Your task to perform on an android device: Turn off the flashlight Image 0: 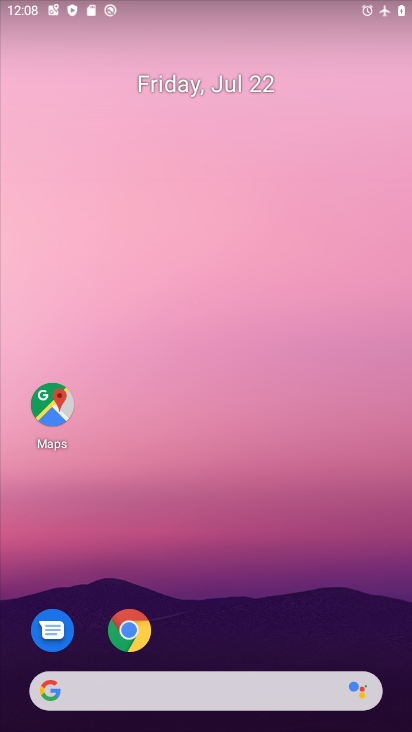
Step 0: drag from (221, 638) to (274, 5)
Your task to perform on an android device: Turn off the flashlight Image 1: 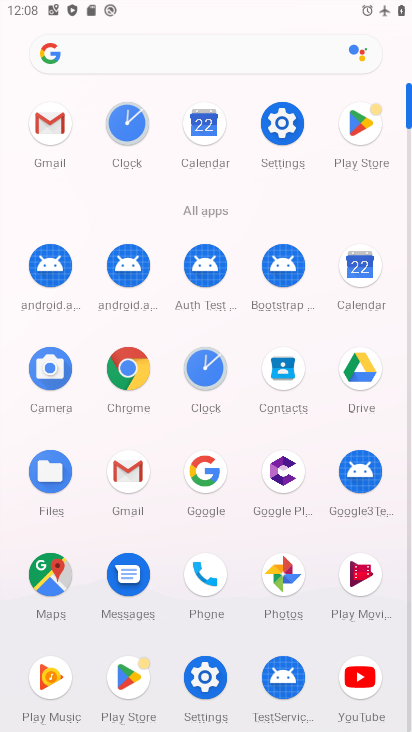
Step 1: click (289, 148)
Your task to perform on an android device: Turn off the flashlight Image 2: 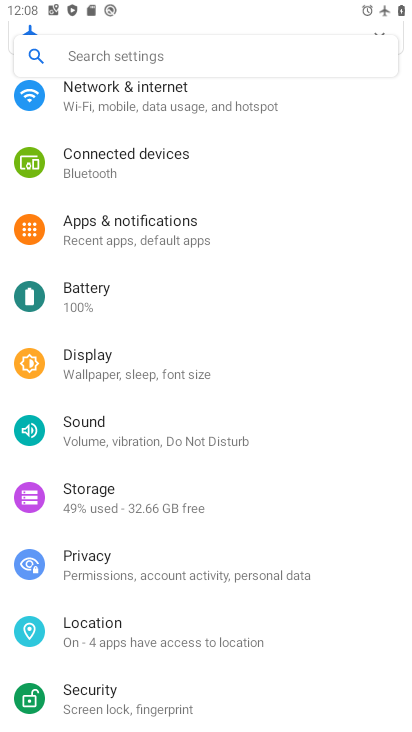
Step 2: click (189, 62)
Your task to perform on an android device: Turn off the flashlight Image 3: 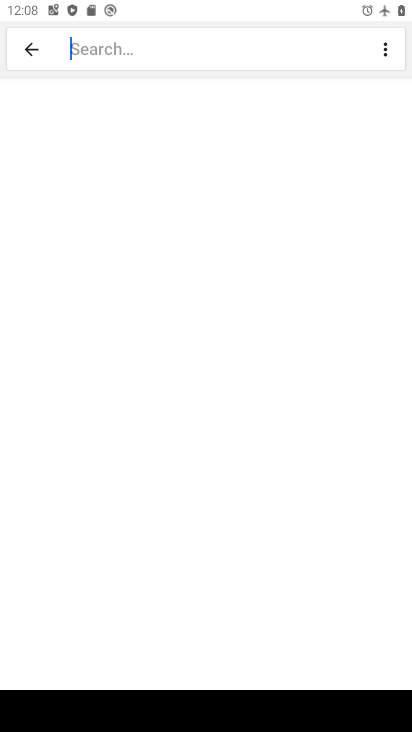
Step 3: type "fl"
Your task to perform on an android device: Turn off the flashlight Image 4: 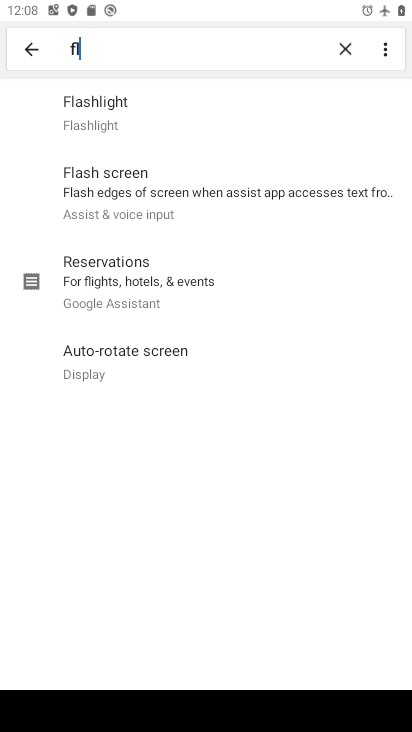
Step 4: click (161, 49)
Your task to perform on an android device: Turn off the flashlight Image 5: 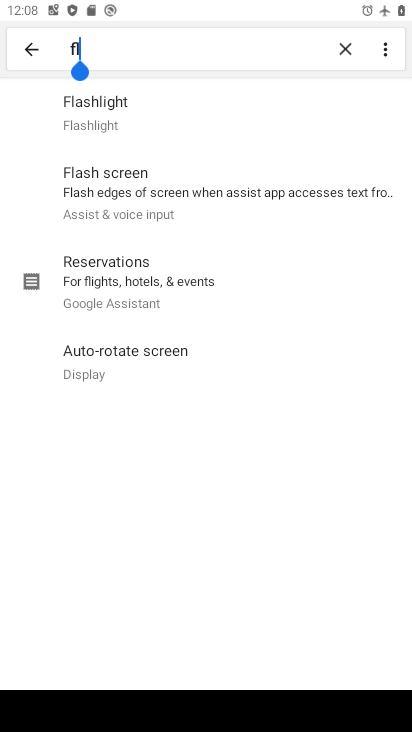
Step 5: click (87, 116)
Your task to perform on an android device: Turn off the flashlight Image 6: 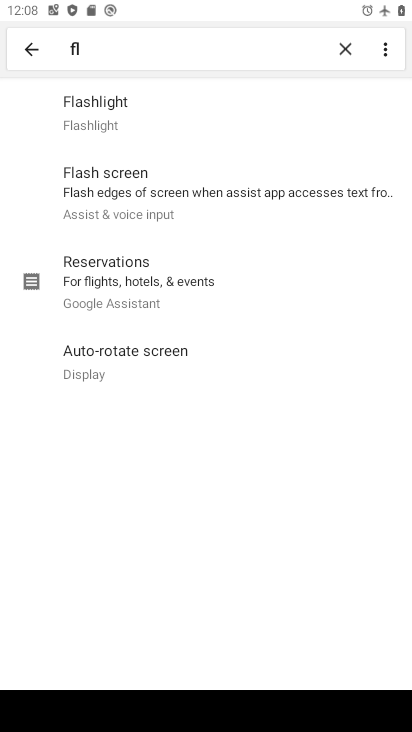
Step 6: click (87, 116)
Your task to perform on an android device: Turn off the flashlight Image 7: 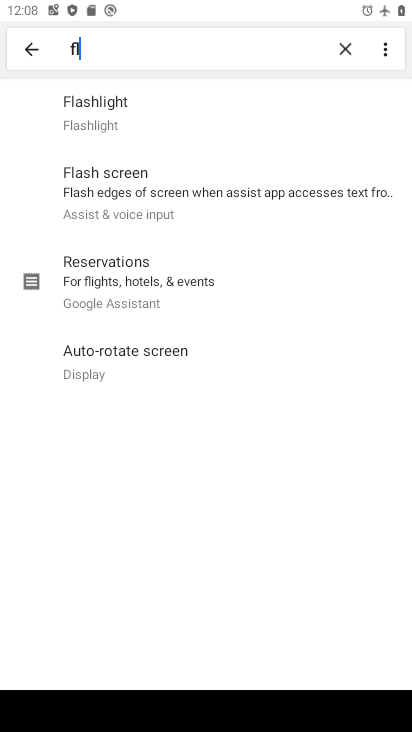
Step 7: click (101, 100)
Your task to perform on an android device: Turn off the flashlight Image 8: 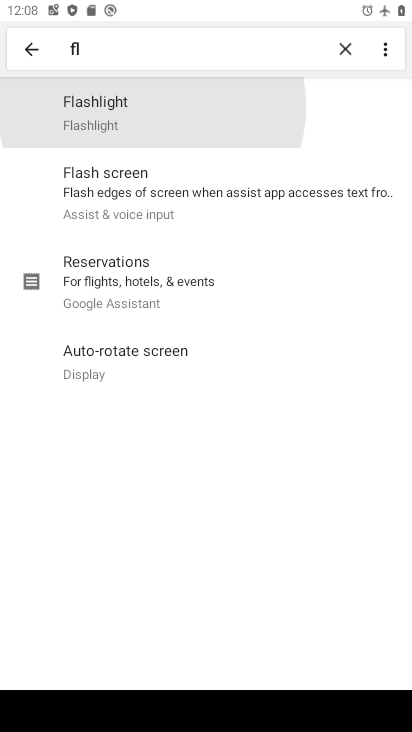
Step 8: click (101, 100)
Your task to perform on an android device: Turn off the flashlight Image 9: 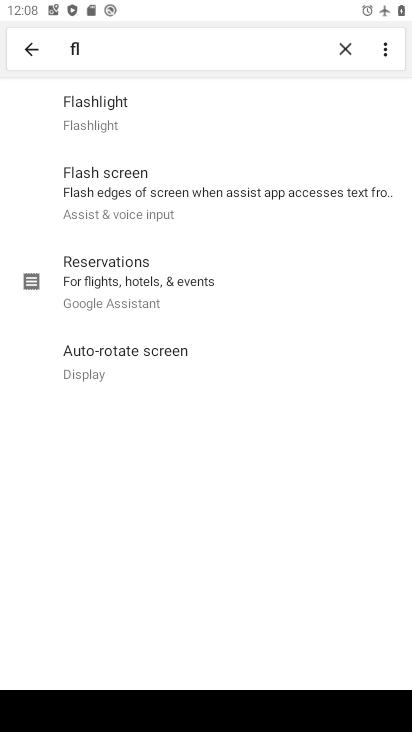
Step 9: click (101, 100)
Your task to perform on an android device: Turn off the flashlight Image 10: 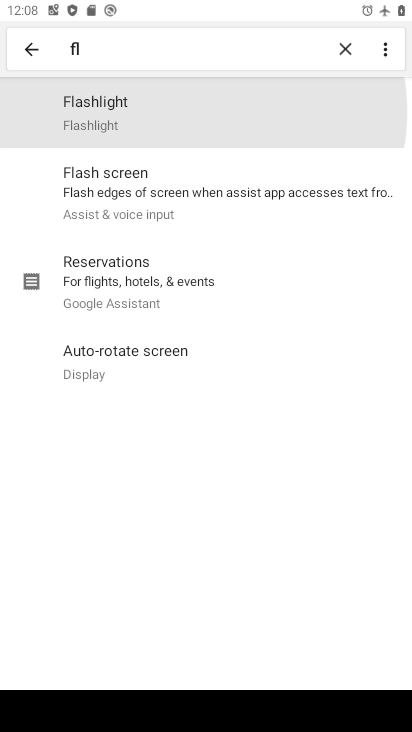
Step 10: click (101, 100)
Your task to perform on an android device: Turn off the flashlight Image 11: 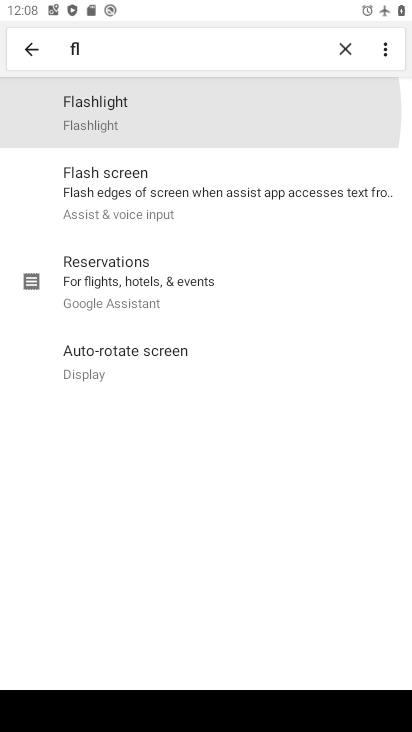
Step 11: click (101, 100)
Your task to perform on an android device: Turn off the flashlight Image 12: 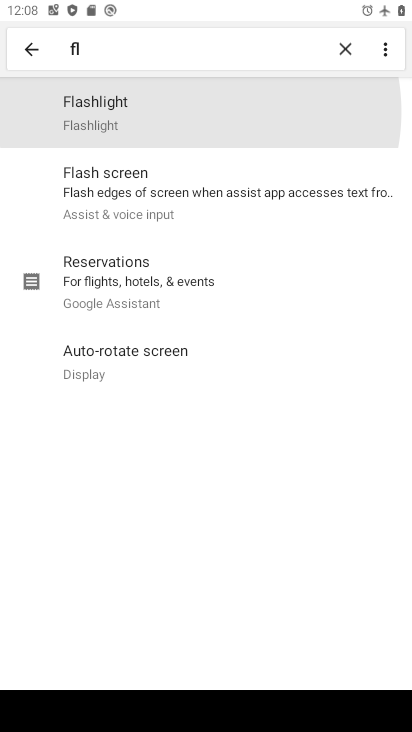
Step 12: click (101, 100)
Your task to perform on an android device: Turn off the flashlight Image 13: 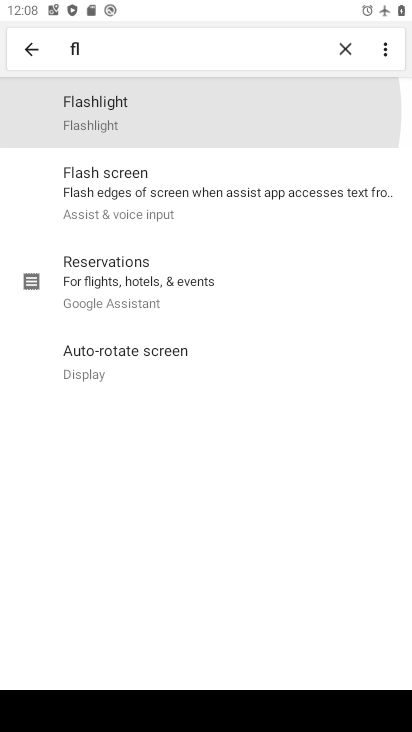
Step 13: click (101, 100)
Your task to perform on an android device: Turn off the flashlight Image 14: 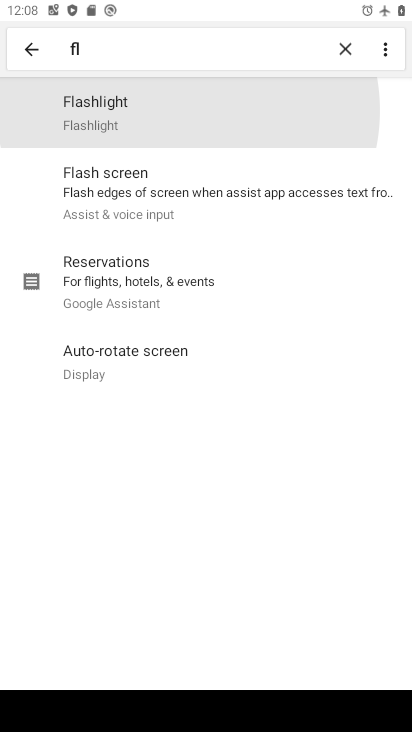
Step 14: click (101, 100)
Your task to perform on an android device: Turn off the flashlight Image 15: 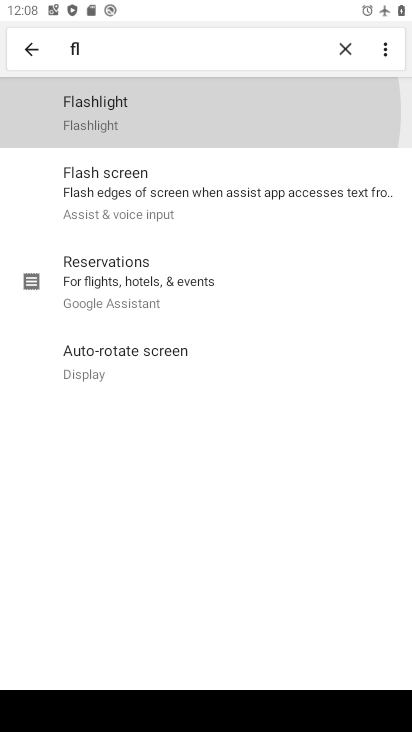
Step 15: click (101, 100)
Your task to perform on an android device: Turn off the flashlight Image 16: 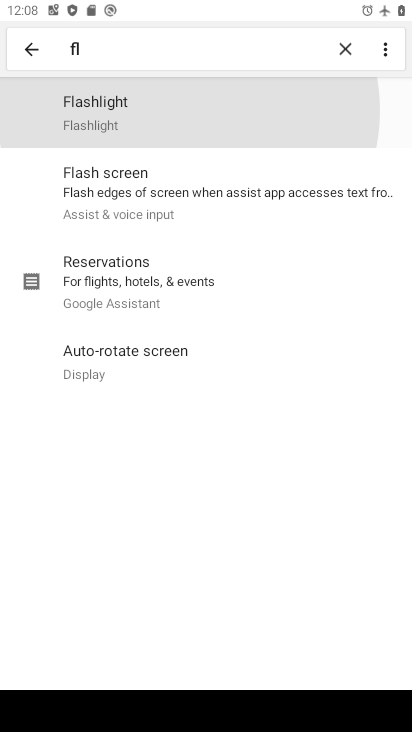
Step 16: click (101, 100)
Your task to perform on an android device: Turn off the flashlight Image 17: 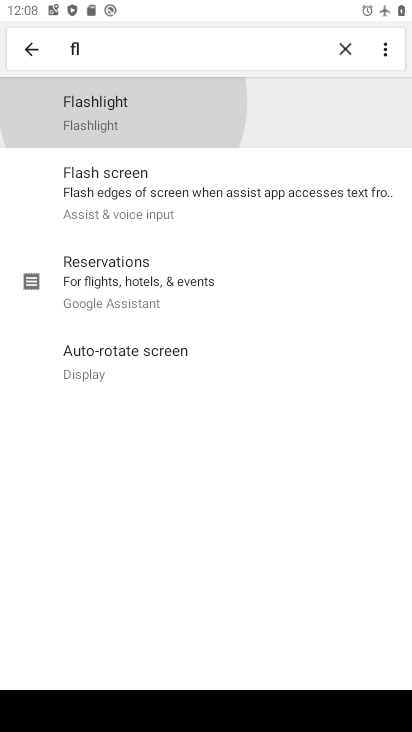
Step 17: click (101, 100)
Your task to perform on an android device: Turn off the flashlight Image 18: 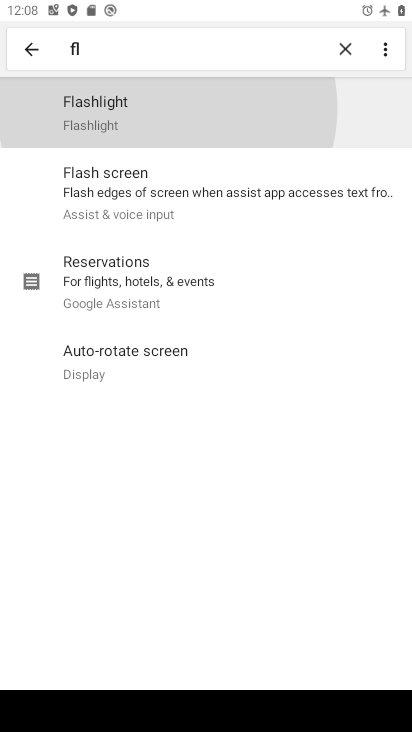
Step 18: click (101, 100)
Your task to perform on an android device: Turn off the flashlight Image 19: 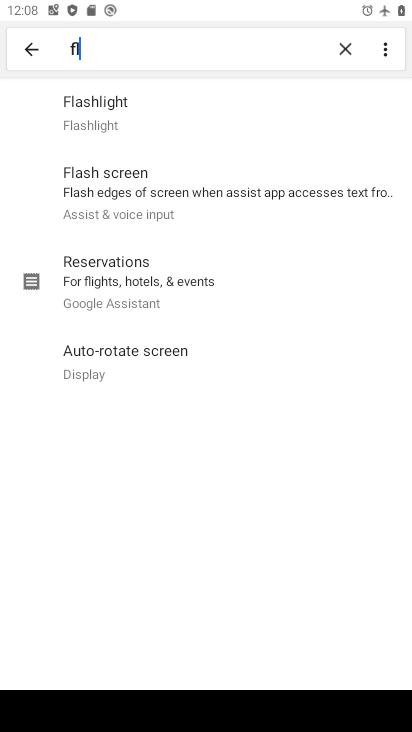
Step 19: task complete